Your task to perform on an android device: turn on translation in the chrome app Image 0: 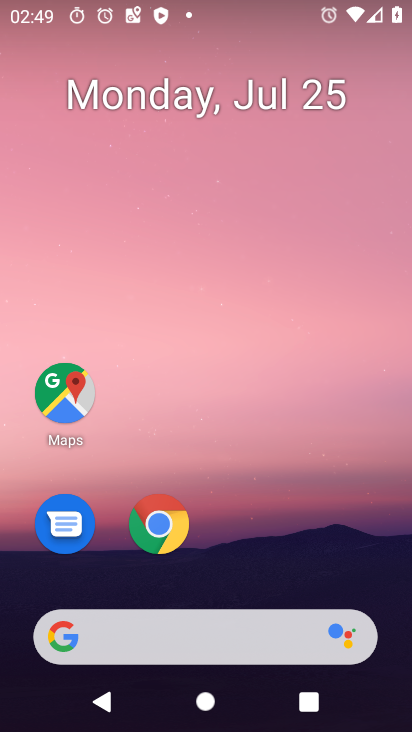
Step 0: drag from (249, 549) to (258, 48)
Your task to perform on an android device: turn on translation in the chrome app Image 1: 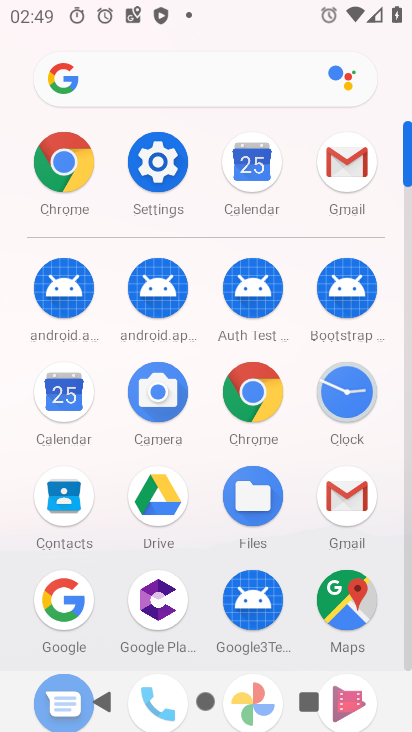
Step 1: click (60, 158)
Your task to perform on an android device: turn on translation in the chrome app Image 2: 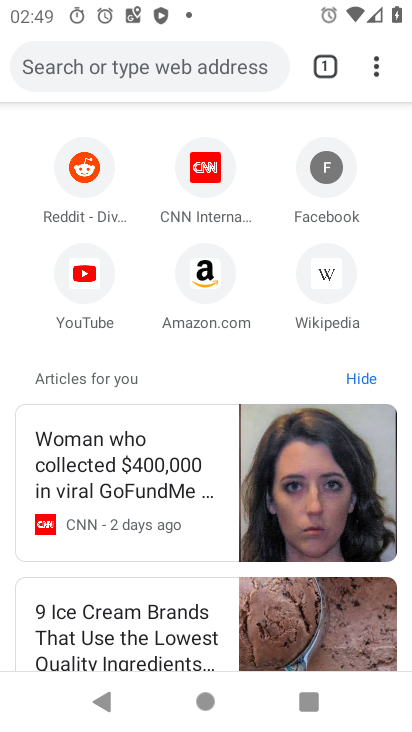
Step 2: drag from (376, 64) to (148, 561)
Your task to perform on an android device: turn on translation in the chrome app Image 3: 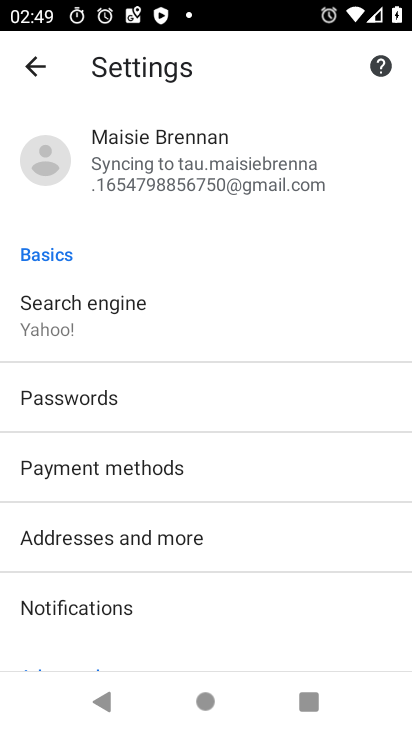
Step 3: drag from (312, 625) to (310, 41)
Your task to perform on an android device: turn on translation in the chrome app Image 4: 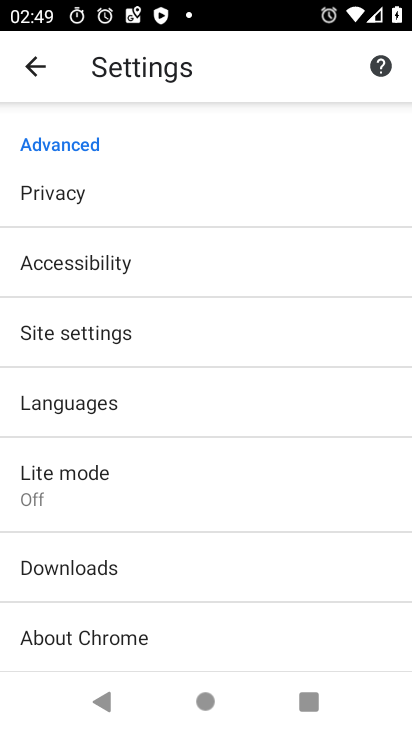
Step 4: click (58, 402)
Your task to perform on an android device: turn on translation in the chrome app Image 5: 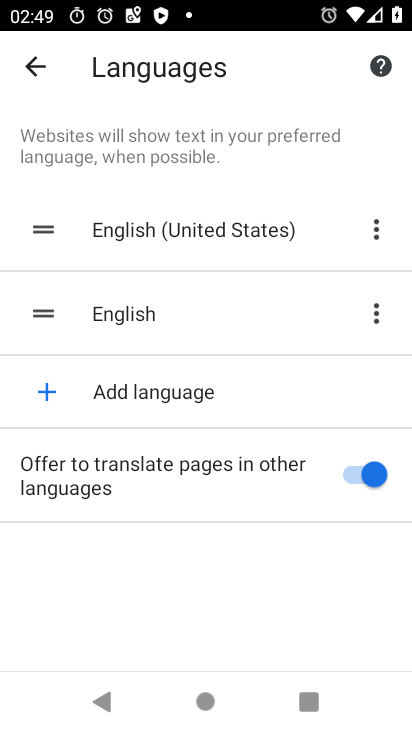
Step 5: task complete